Your task to perform on an android device: Add sony triple a to the cart on target.com, then select checkout. Image 0: 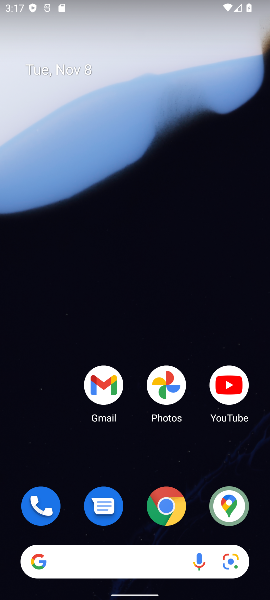
Step 0: drag from (131, 467) to (183, 21)
Your task to perform on an android device: Add sony triple a to the cart on target.com, then select checkout. Image 1: 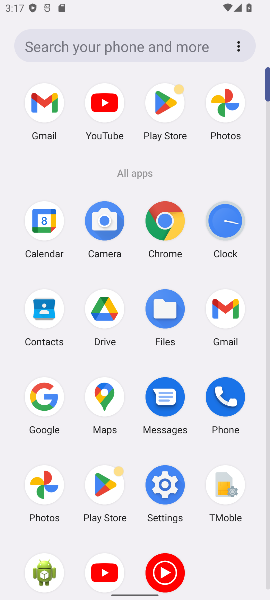
Step 1: click (45, 402)
Your task to perform on an android device: Add sony triple a to the cart on target.com, then select checkout. Image 2: 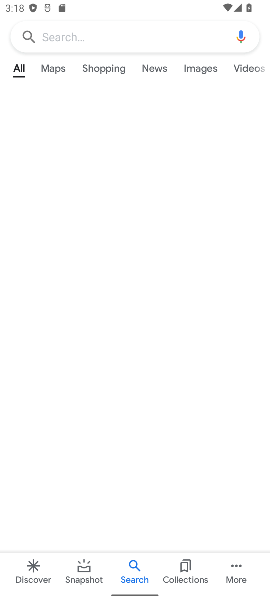
Step 2: click (126, 42)
Your task to perform on an android device: Add sony triple a to the cart on target.com, then select checkout. Image 3: 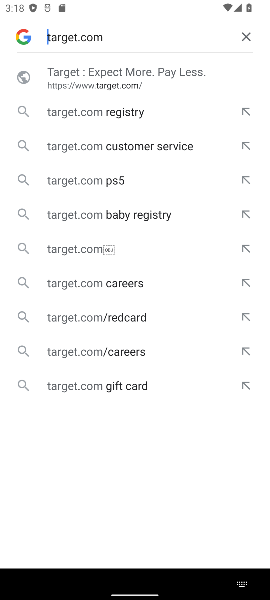
Step 3: type "target.com"
Your task to perform on an android device: Add sony triple a to the cart on target.com, then select checkout. Image 4: 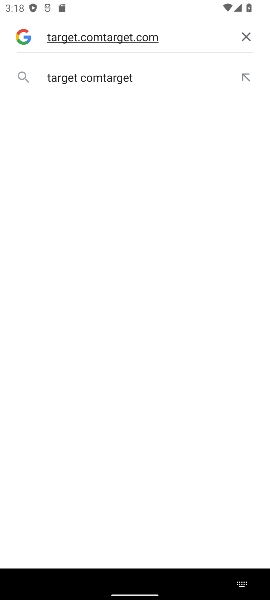
Step 4: click (247, 42)
Your task to perform on an android device: Add sony triple a to the cart on target.com, then select checkout. Image 5: 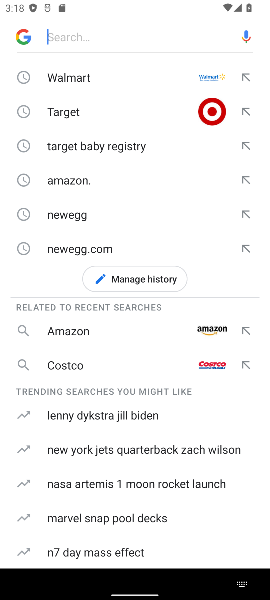
Step 5: type "target.com"
Your task to perform on an android device: Add sony triple a to the cart on target.com, then select checkout. Image 6: 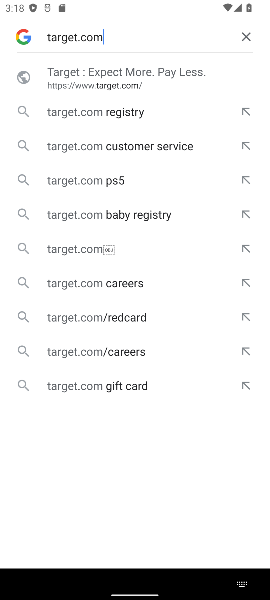
Step 6: click (148, 89)
Your task to perform on an android device: Add sony triple a to the cart on target.com, then select checkout. Image 7: 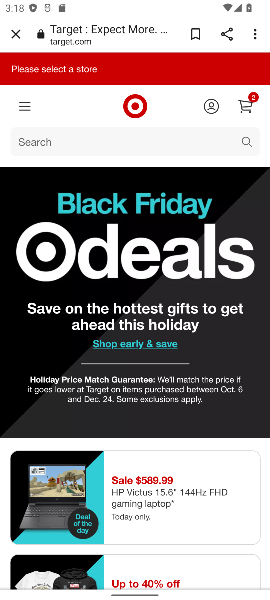
Step 7: click (39, 143)
Your task to perform on an android device: Add sony triple a to the cart on target.com, then select checkout. Image 8: 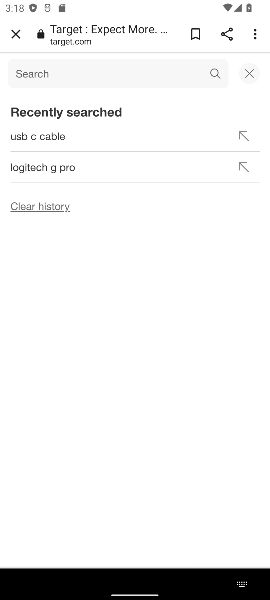
Step 8: type "sony triple a"
Your task to perform on an android device: Add sony triple a to the cart on target.com, then select checkout. Image 9: 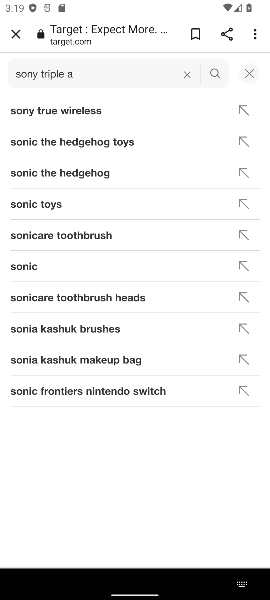
Step 9: task complete